Your task to perform on an android device: see creations saved in the google photos Image 0: 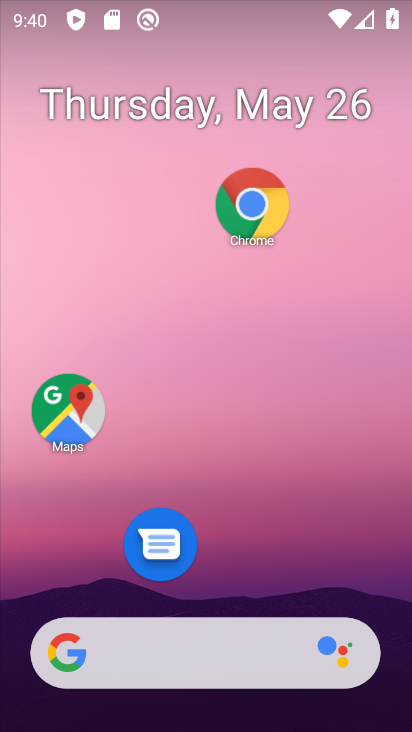
Step 0: press home button
Your task to perform on an android device: see creations saved in the google photos Image 1: 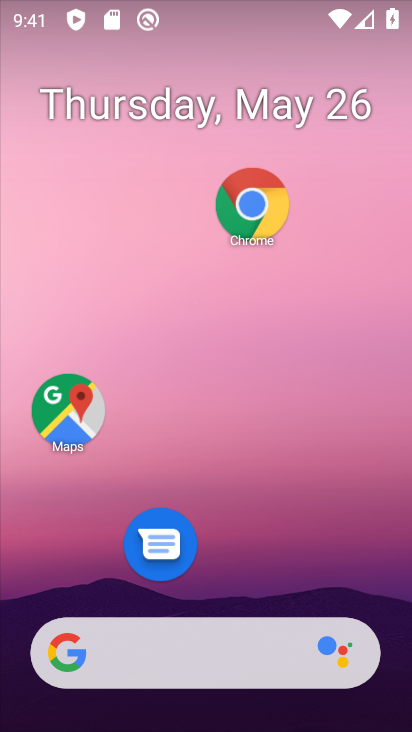
Step 1: drag from (217, 595) to (238, 72)
Your task to perform on an android device: see creations saved in the google photos Image 2: 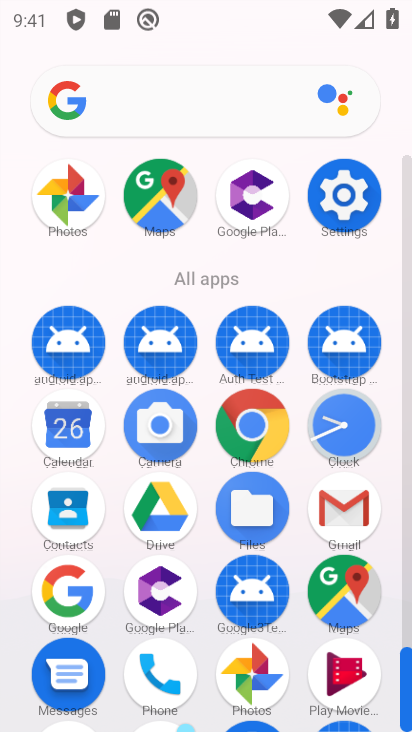
Step 2: click (67, 187)
Your task to perform on an android device: see creations saved in the google photos Image 3: 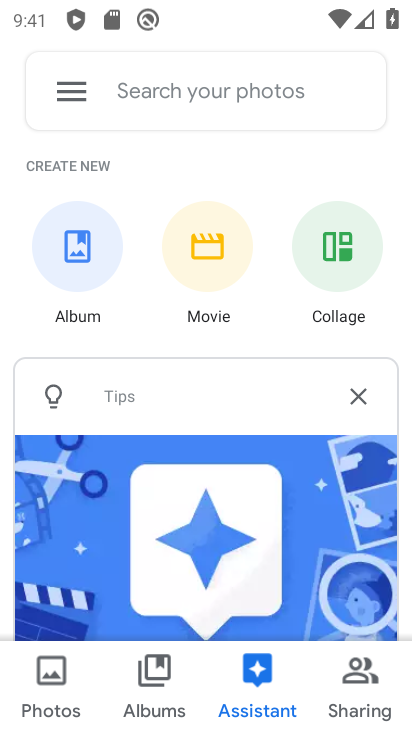
Step 3: click (68, 86)
Your task to perform on an android device: see creations saved in the google photos Image 4: 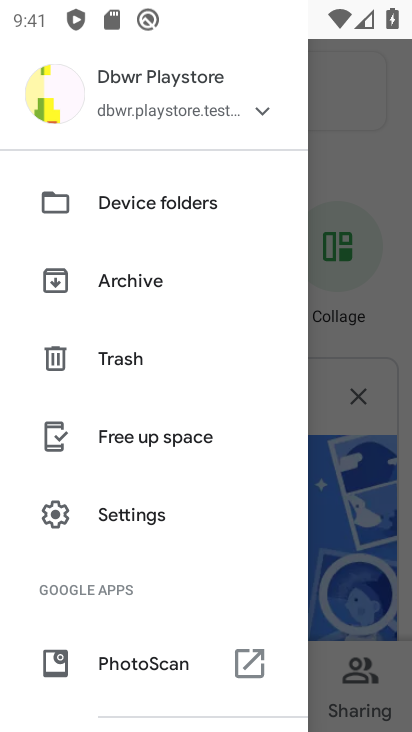
Step 4: click (375, 120)
Your task to perform on an android device: see creations saved in the google photos Image 5: 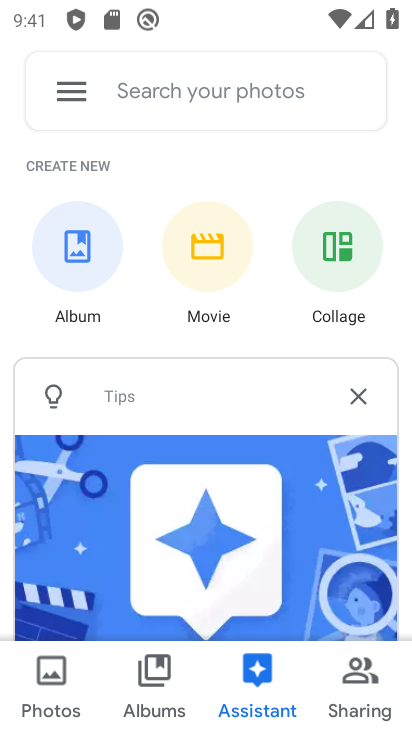
Step 5: click (181, 83)
Your task to perform on an android device: see creations saved in the google photos Image 6: 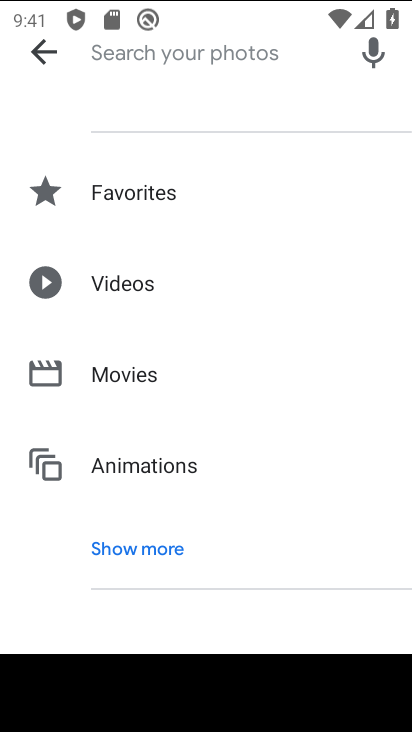
Step 6: click (125, 547)
Your task to perform on an android device: see creations saved in the google photos Image 7: 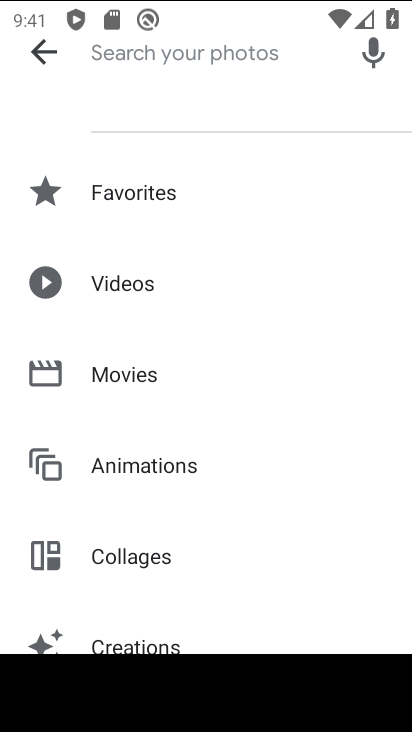
Step 7: click (189, 639)
Your task to perform on an android device: see creations saved in the google photos Image 8: 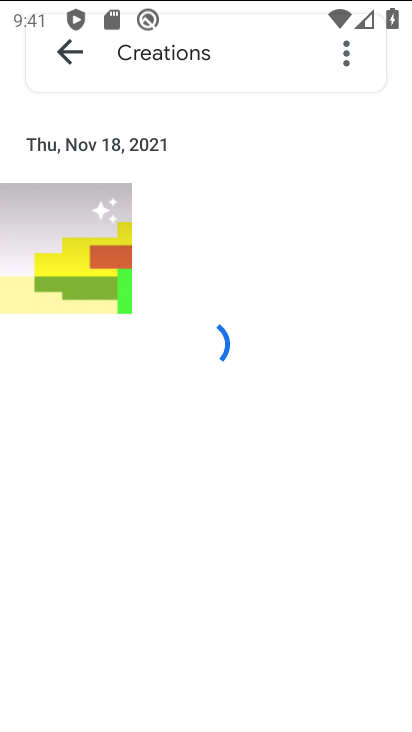
Step 8: task complete